Your task to perform on an android device: find photos in the google photos app Image 0: 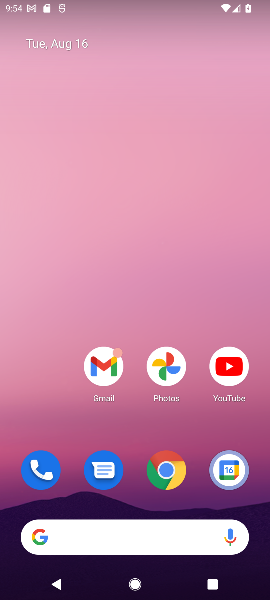
Step 0: click (165, 359)
Your task to perform on an android device: find photos in the google photos app Image 1: 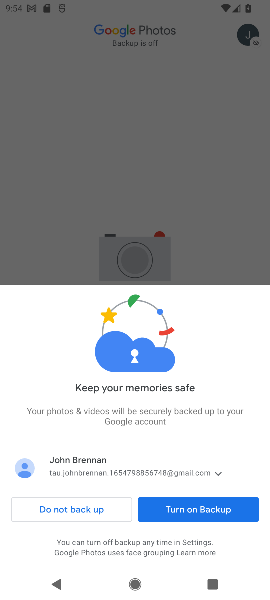
Step 1: click (186, 506)
Your task to perform on an android device: find photos in the google photos app Image 2: 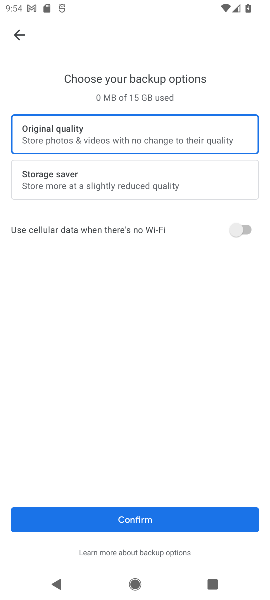
Step 2: click (182, 515)
Your task to perform on an android device: find photos in the google photos app Image 3: 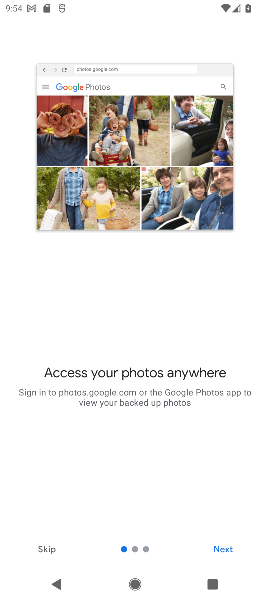
Step 3: click (226, 546)
Your task to perform on an android device: find photos in the google photos app Image 4: 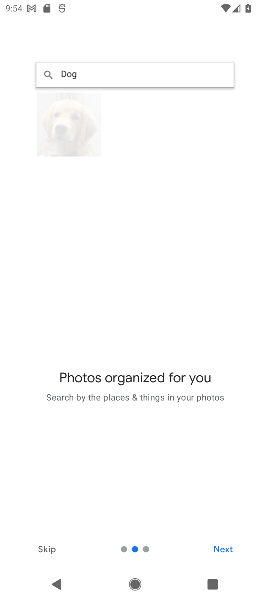
Step 4: click (226, 546)
Your task to perform on an android device: find photos in the google photos app Image 5: 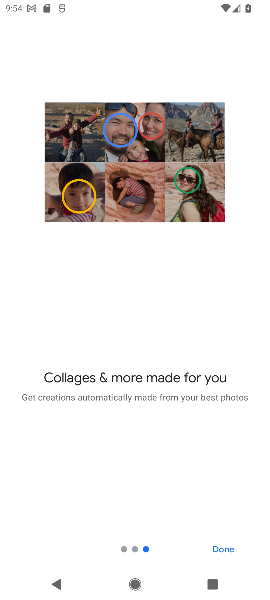
Step 5: click (226, 546)
Your task to perform on an android device: find photos in the google photos app Image 6: 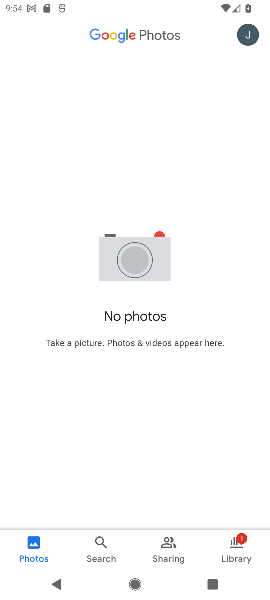
Step 6: task complete